Your task to perform on an android device: change the clock display to digital Image 0: 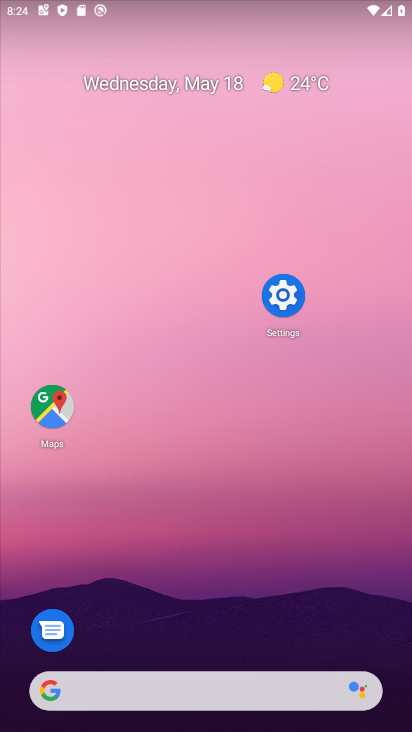
Step 0: drag from (138, 668) to (176, 344)
Your task to perform on an android device: change the clock display to digital Image 1: 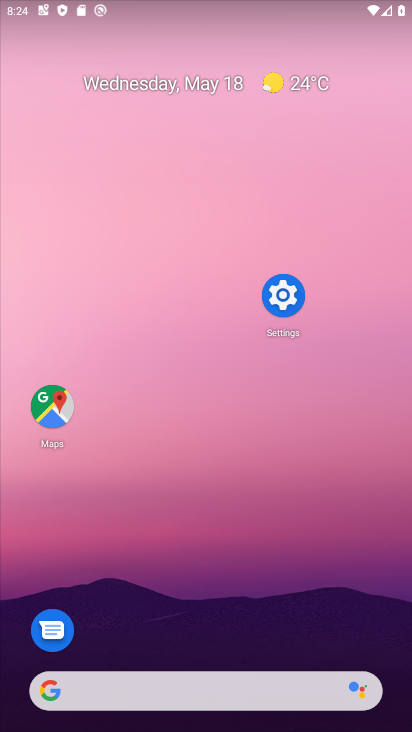
Step 1: drag from (178, 677) to (239, 208)
Your task to perform on an android device: change the clock display to digital Image 2: 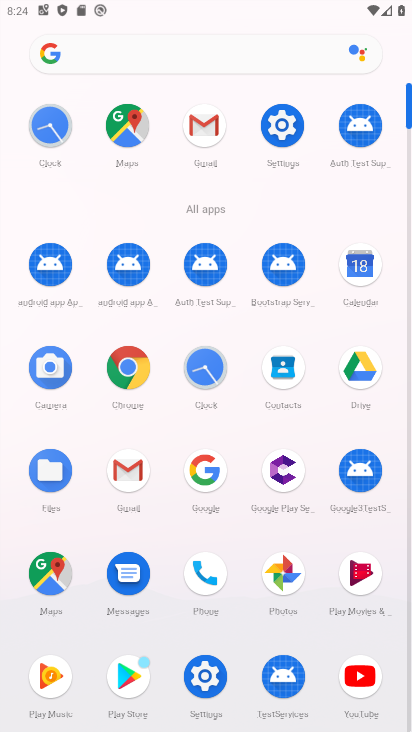
Step 2: click (40, 137)
Your task to perform on an android device: change the clock display to digital Image 3: 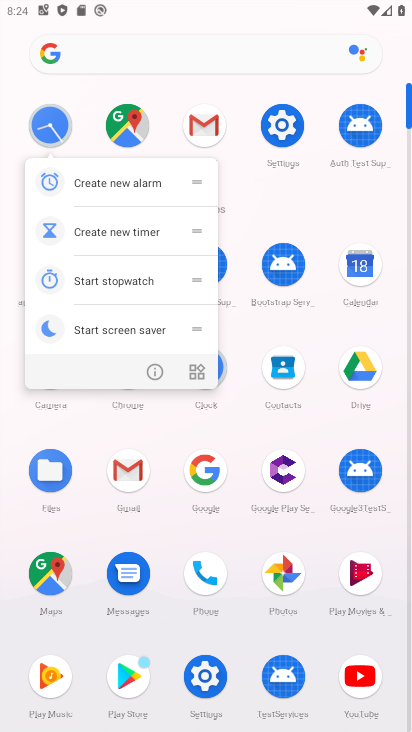
Step 3: click (49, 127)
Your task to perform on an android device: change the clock display to digital Image 4: 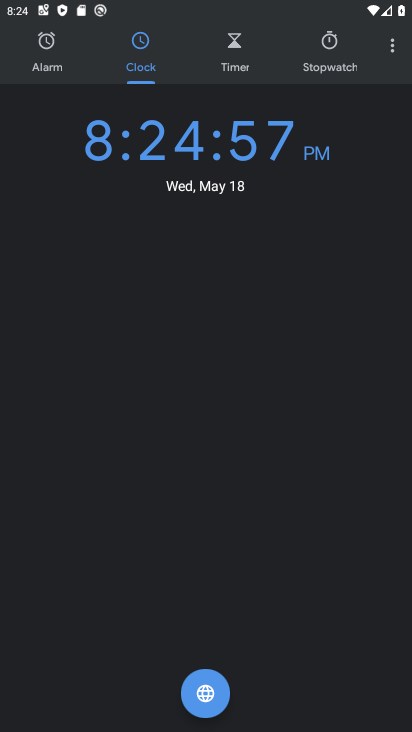
Step 4: click (397, 43)
Your task to perform on an android device: change the clock display to digital Image 5: 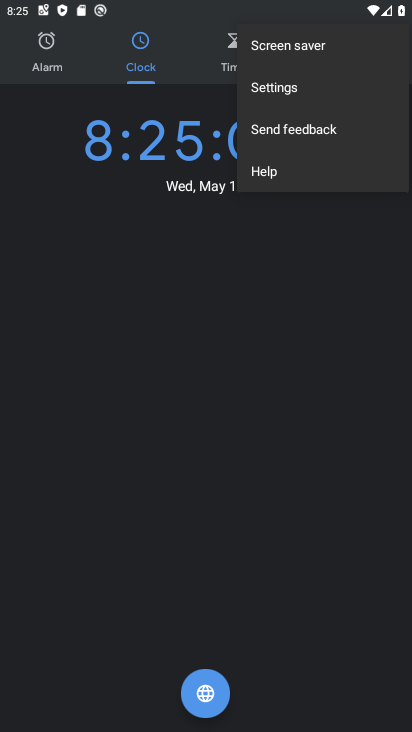
Step 5: click (293, 87)
Your task to perform on an android device: change the clock display to digital Image 6: 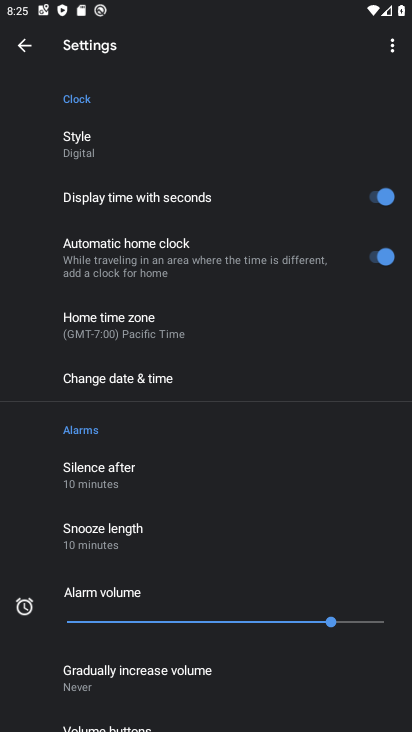
Step 6: task complete